Your task to perform on an android device: see creations saved in the google photos Image 0: 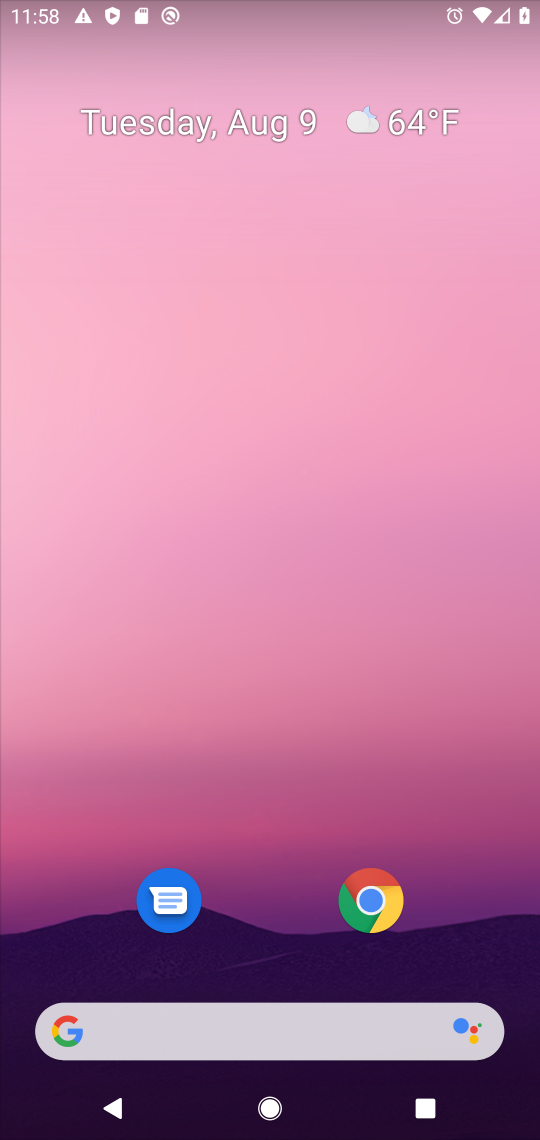
Step 0: drag from (293, 693) to (364, 34)
Your task to perform on an android device: see creations saved in the google photos Image 1: 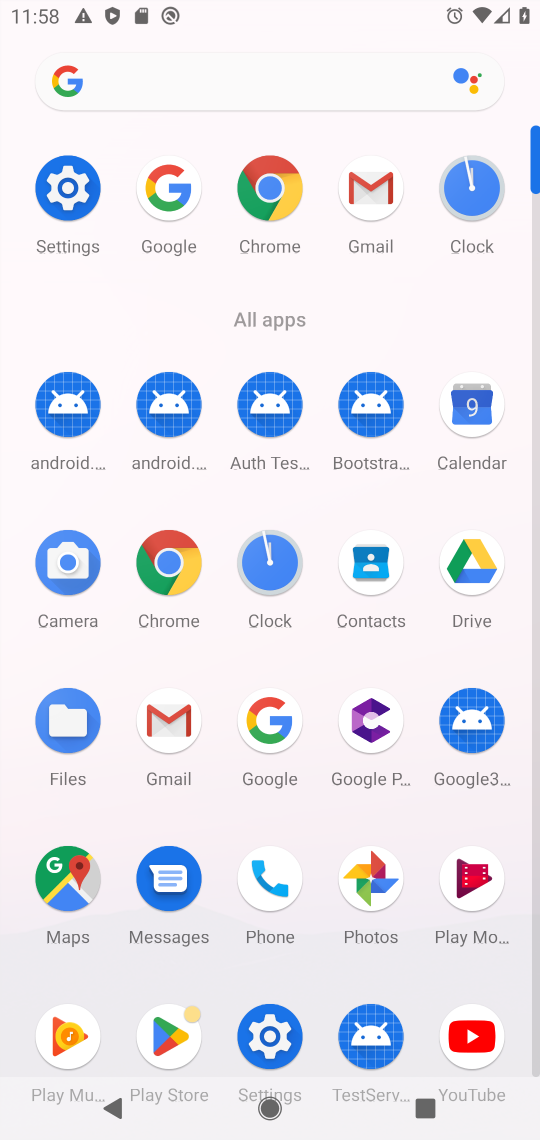
Step 1: click (372, 880)
Your task to perform on an android device: see creations saved in the google photos Image 2: 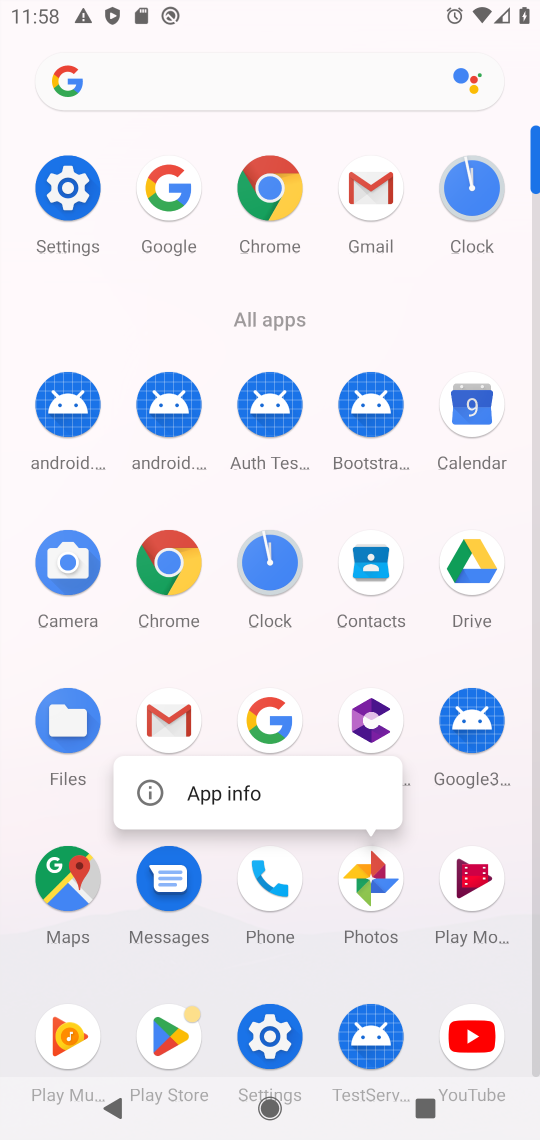
Step 2: click (372, 880)
Your task to perform on an android device: see creations saved in the google photos Image 3: 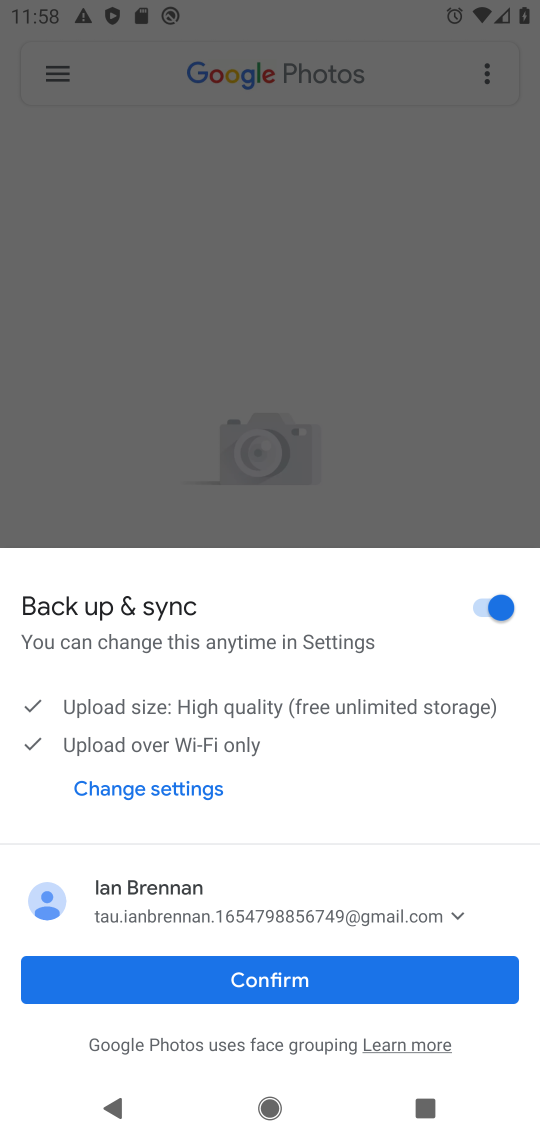
Step 3: click (383, 982)
Your task to perform on an android device: see creations saved in the google photos Image 4: 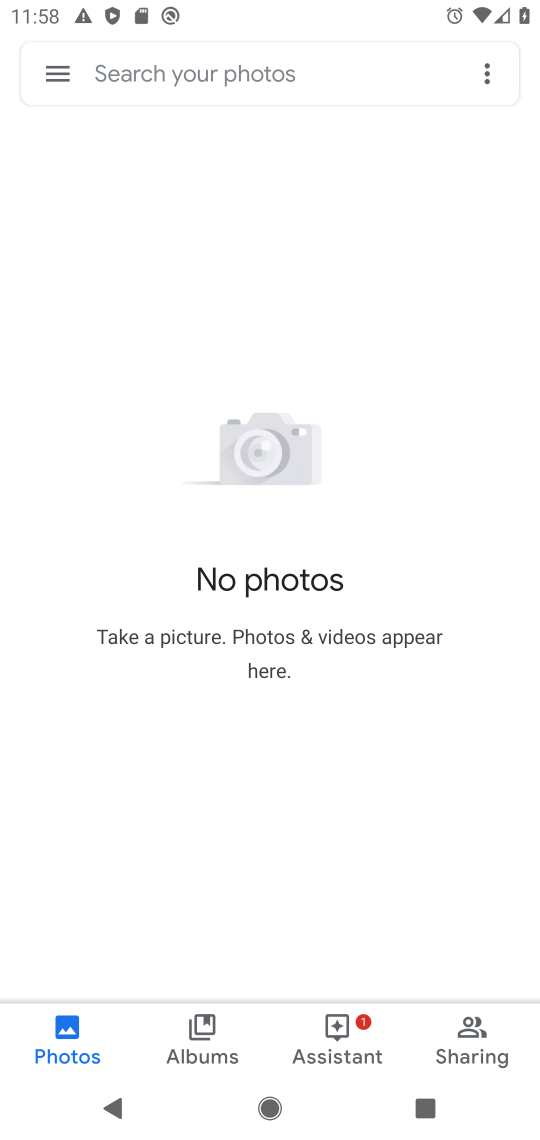
Step 4: click (366, 65)
Your task to perform on an android device: see creations saved in the google photos Image 5: 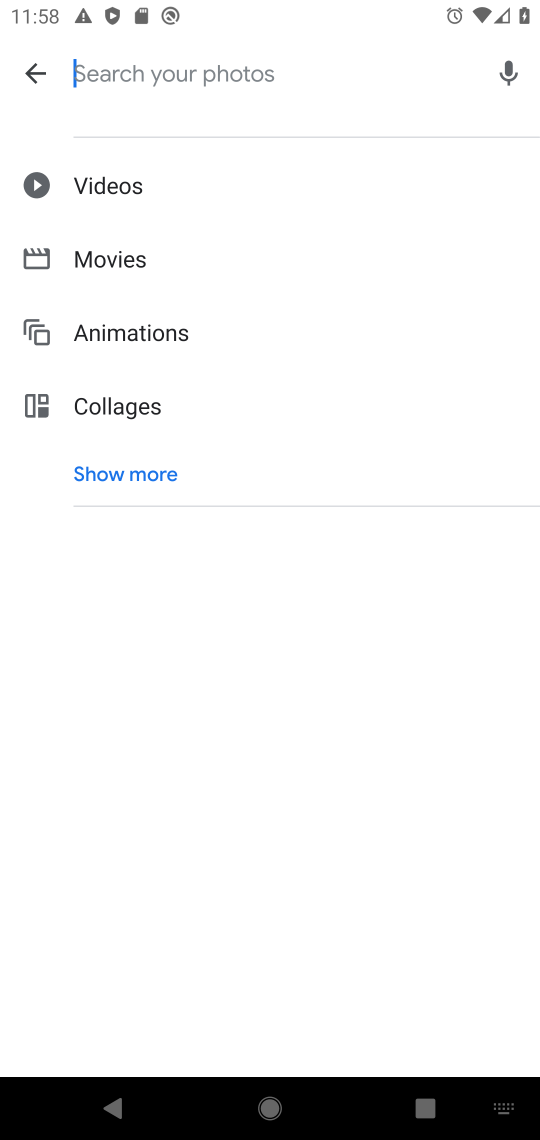
Step 5: click (163, 479)
Your task to perform on an android device: see creations saved in the google photos Image 6: 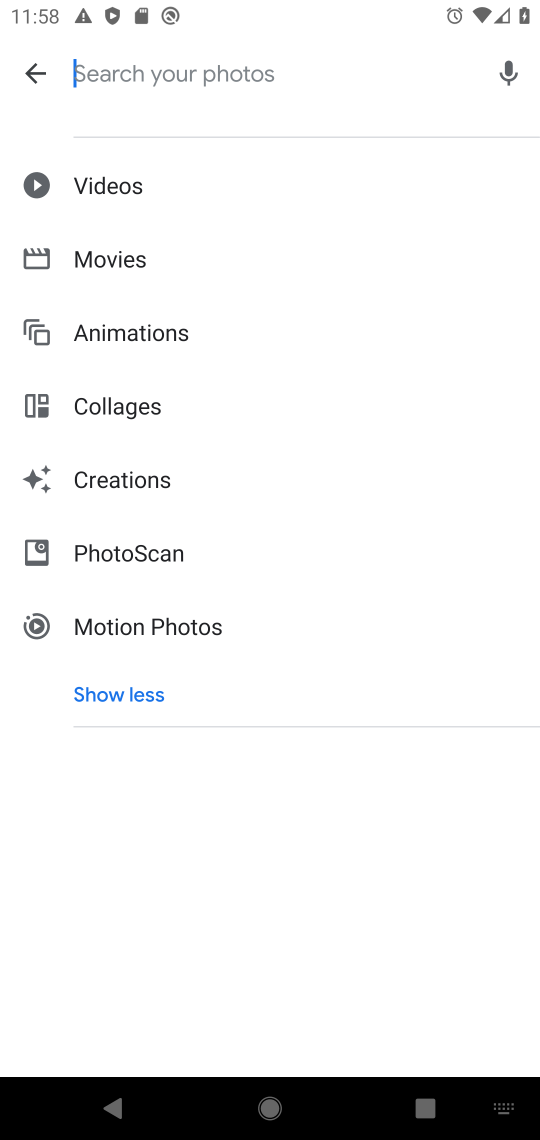
Step 6: click (163, 479)
Your task to perform on an android device: see creations saved in the google photos Image 7: 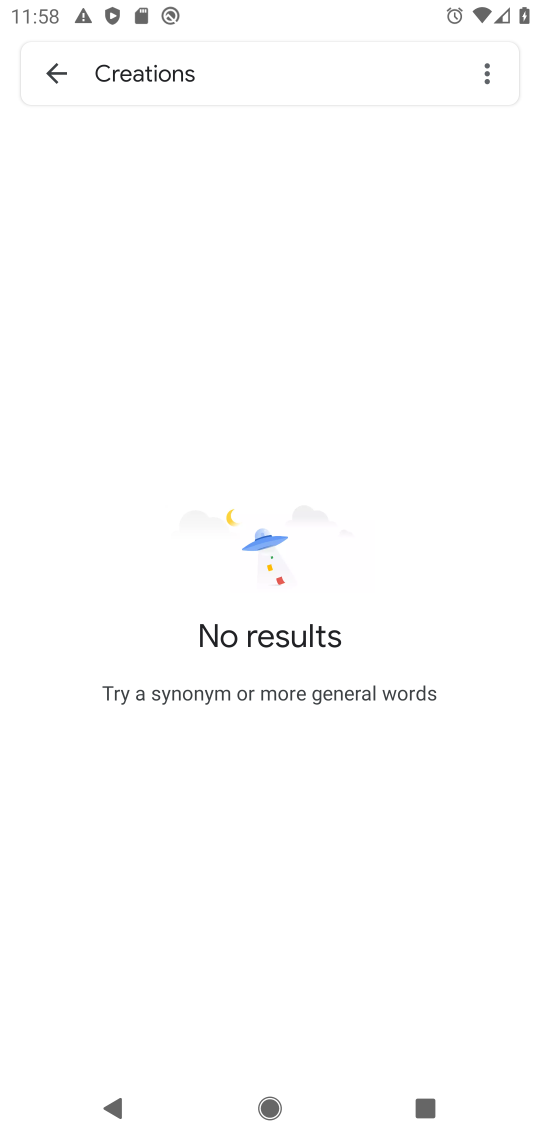
Step 7: task complete